Your task to perform on an android device: turn off smart reply in the gmail app Image 0: 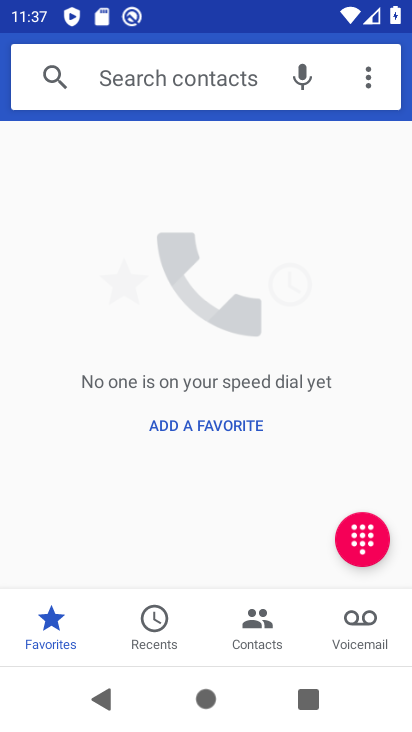
Step 0: press home button
Your task to perform on an android device: turn off smart reply in the gmail app Image 1: 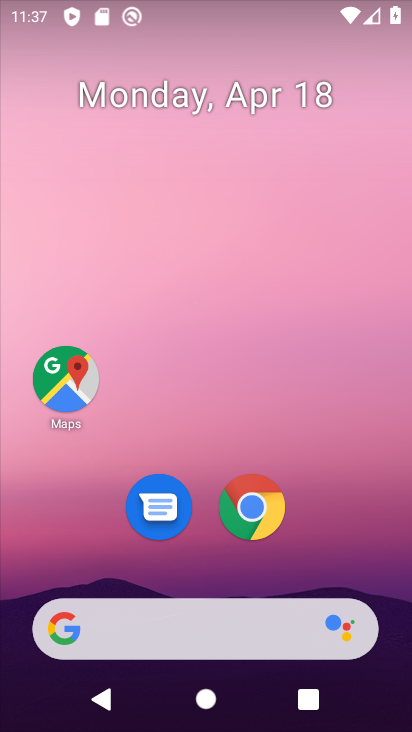
Step 1: drag from (204, 568) to (225, 89)
Your task to perform on an android device: turn off smart reply in the gmail app Image 2: 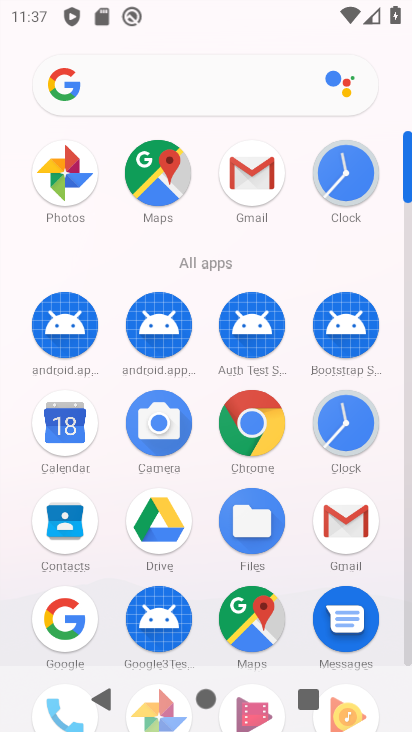
Step 2: click (251, 161)
Your task to perform on an android device: turn off smart reply in the gmail app Image 3: 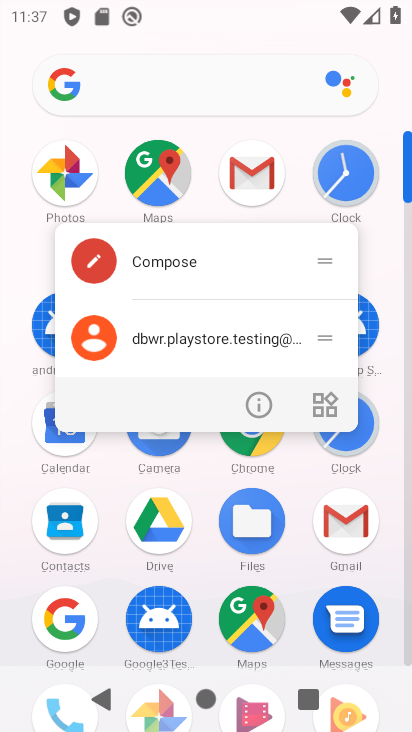
Step 3: click (247, 163)
Your task to perform on an android device: turn off smart reply in the gmail app Image 4: 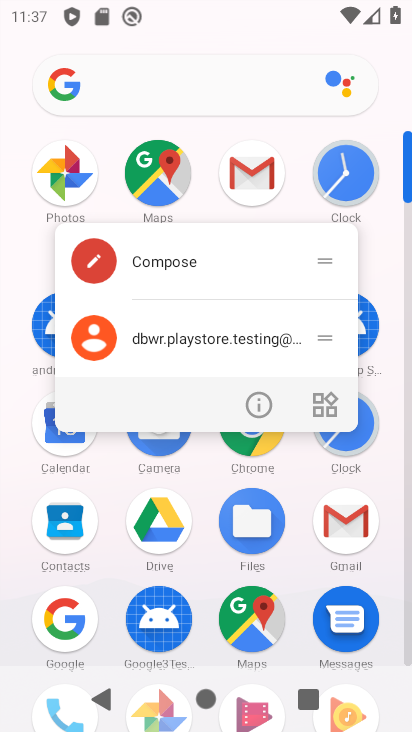
Step 4: click (247, 163)
Your task to perform on an android device: turn off smart reply in the gmail app Image 5: 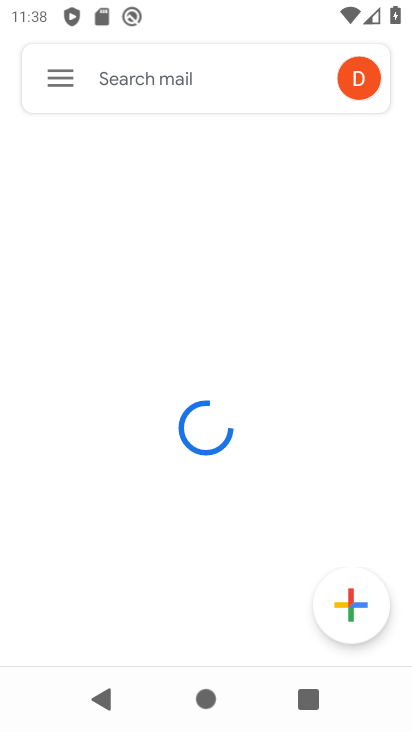
Step 5: click (59, 61)
Your task to perform on an android device: turn off smart reply in the gmail app Image 6: 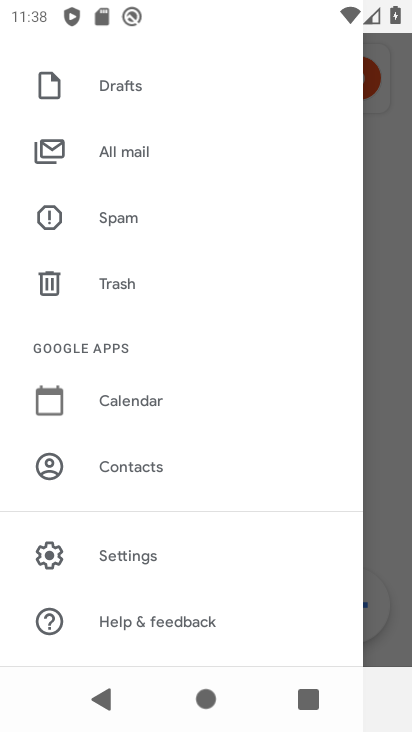
Step 6: click (87, 552)
Your task to perform on an android device: turn off smart reply in the gmail app Image 7: 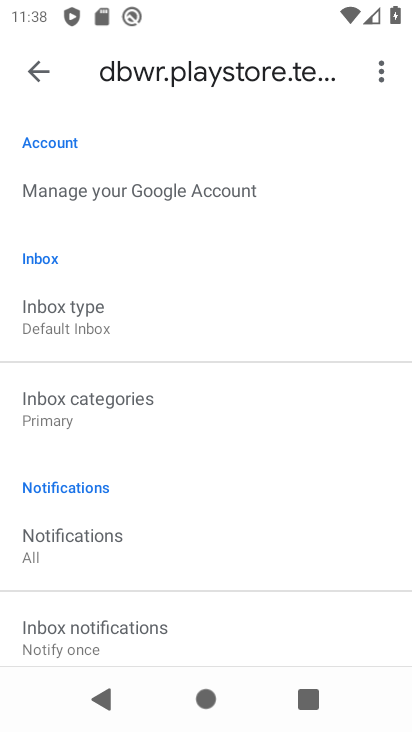
Step 7: drag from (161, 583) to (172, 125)
Your task to perform on an android device: turn off smart reply in the gmail app Image 8: 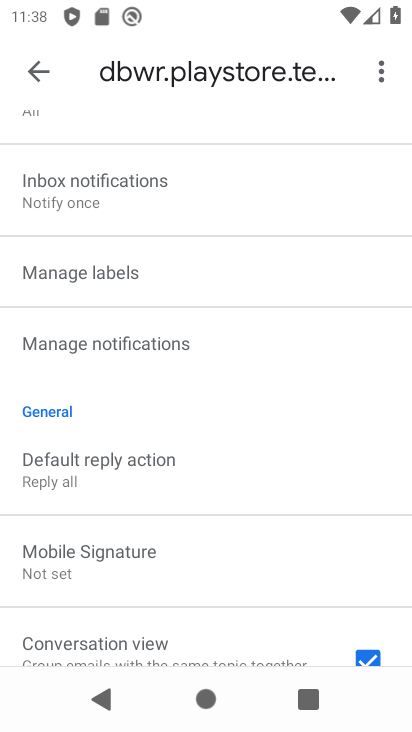
Step 8: drag from (187, 598) to (194, 128)
Your task to perform on an android device: turn off smart reply in the gmail app Image 9: 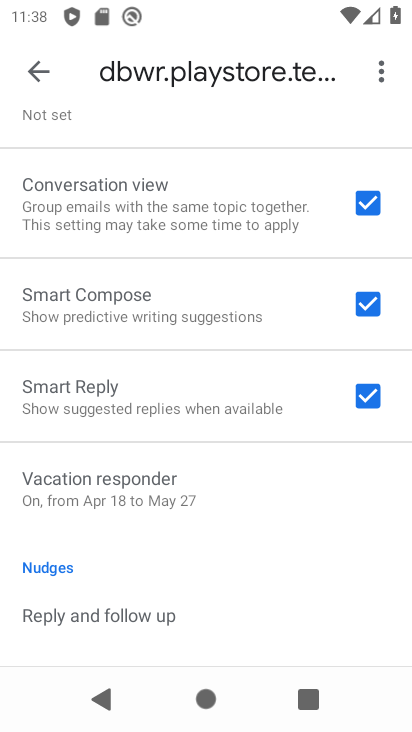
Step 9: click (369, 384)
Your task to perform on an android device: turn off smart reply in the gmail app Image 10: 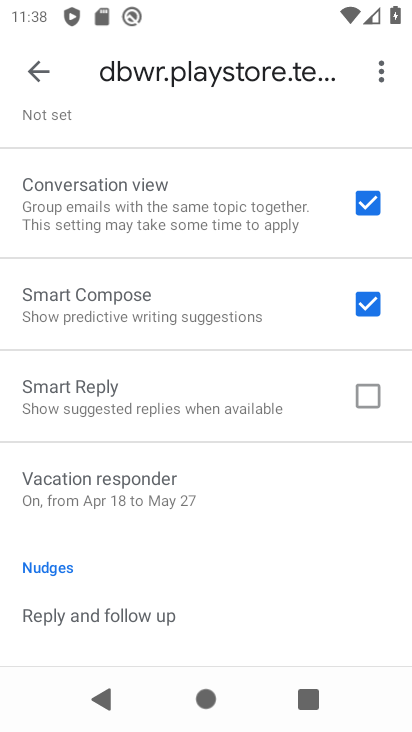
Step 10: task complete